Your task to perform on an android device: move a message to another label in the gmail app Image 0: 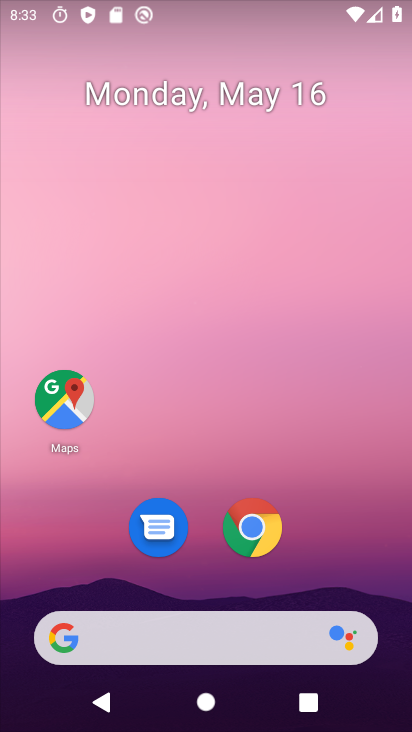
Step 0: drag from (85, 611) to (214, 89)
Your task to perform on an android device: move a message to another label in the gmail app Image 1: 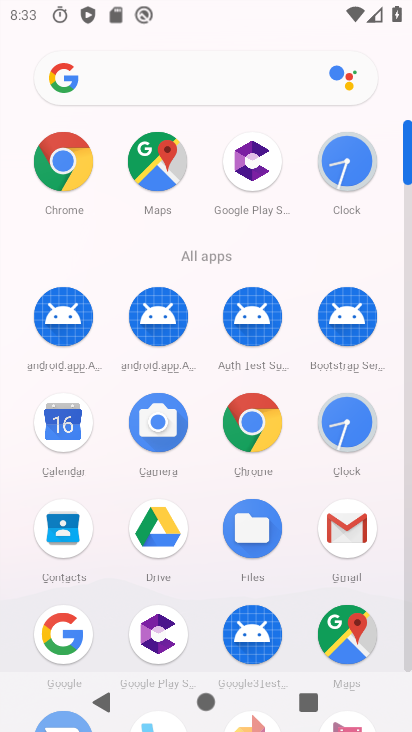
Step 1: click (330, 537)
Your task to perform on an android device: move a message to another label in the gmail app Image 2: 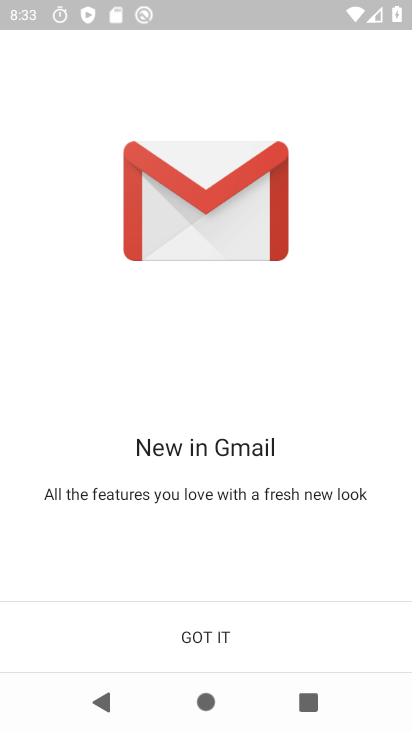
Step 2: click (216, 639)
Your task to perform on an android device: move a message to another label in the gmail app Image 3: 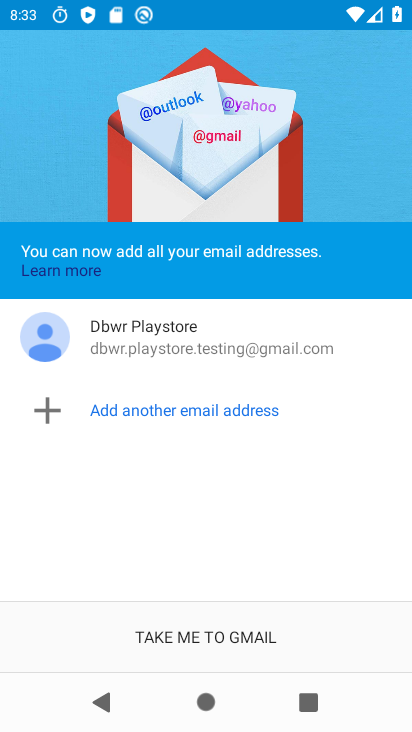
Step 3: click (217, 639)
Your task to perform on an android device: move a message to another label in the gmail app Image 4: 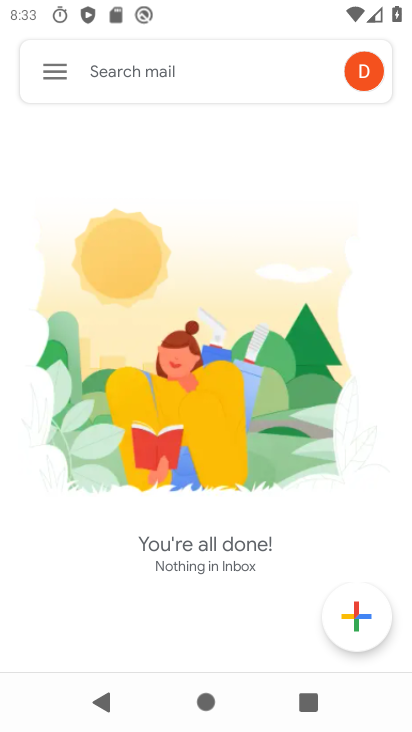
Step 4: click (64, 77)
Your task to perform on an android device: move a message to another label in the gmail app Image 5: 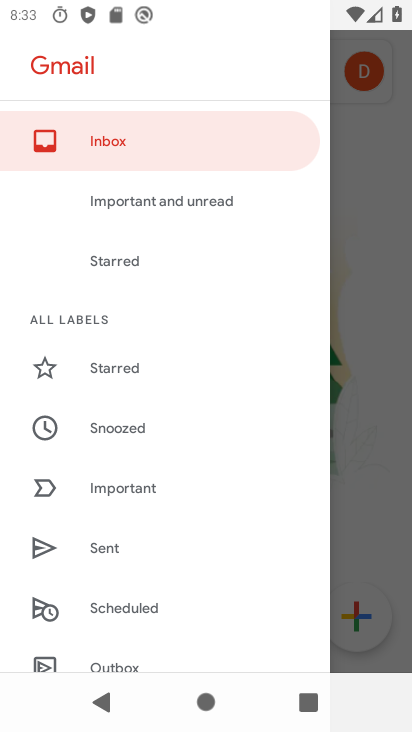
Step 5: drag from (145, 632) to (208, 344)
Your task to perform on an android device: move a message to another label in the gmail app Image 6: 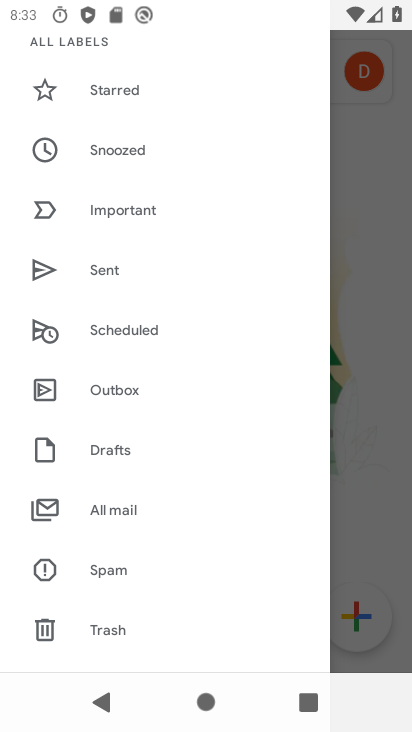
Step 6: click (155, 516)
Your task to perform on an android device: move a message to another label in the gmail app Image 7: 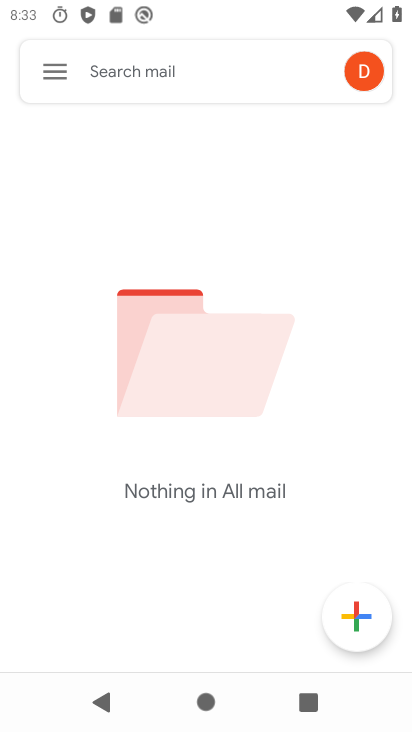
Step 7: task complete